Your task to perform on an android device: install app "Grab" Image 0: 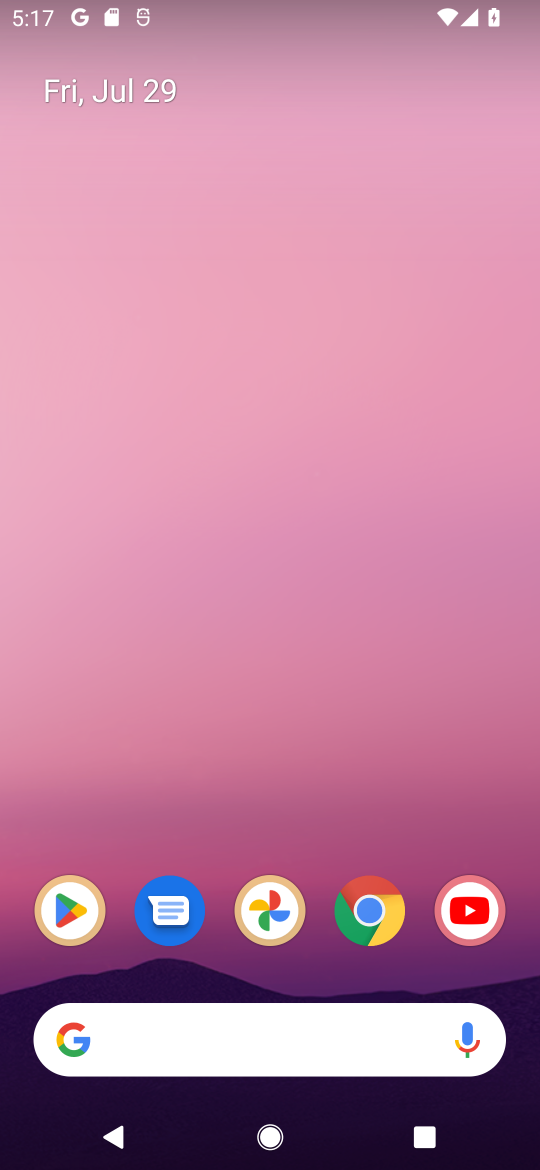
Step 0: click (64, 909)
Your task to perform on an android device: install app "Grab" Image 1: 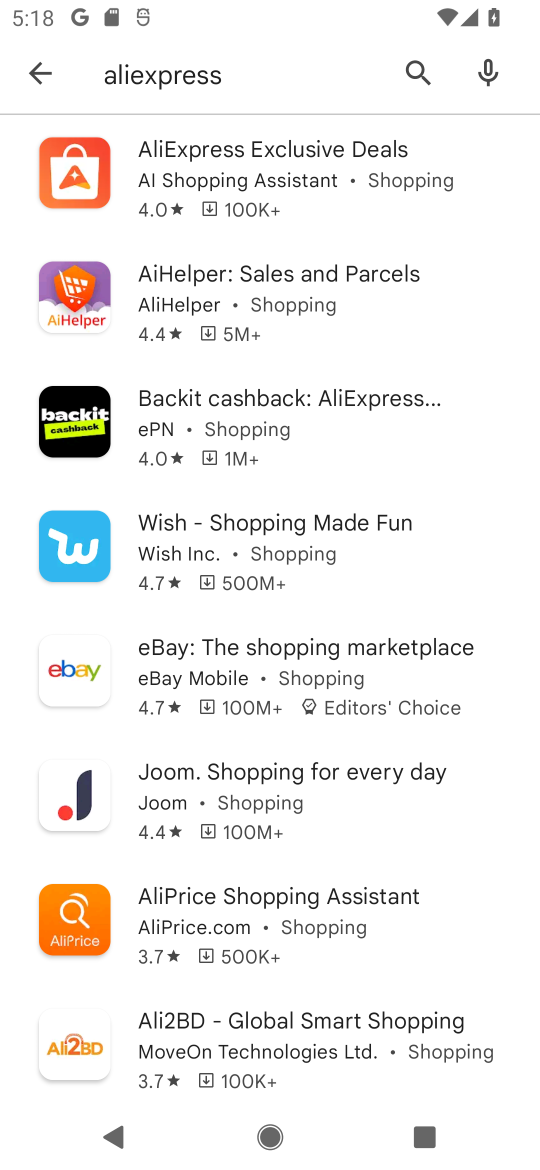
Step 1: click (421, 69)
Your task to perform on an android device: install app "Grab" Image 2: 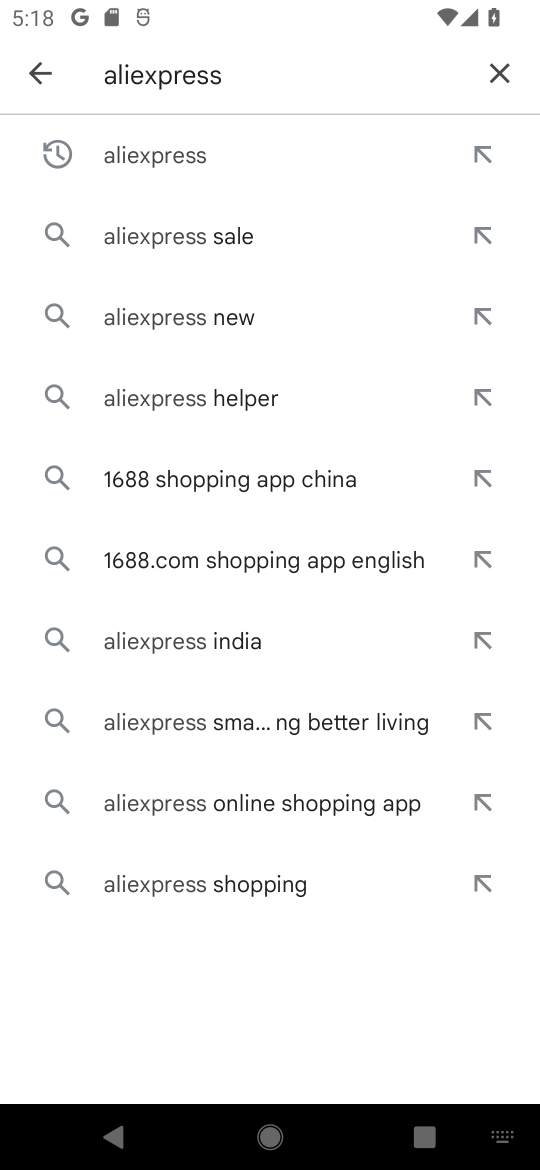
Step 2: click (509, 86)
Your task to perform on an android device: install app "Grab" Image 3: 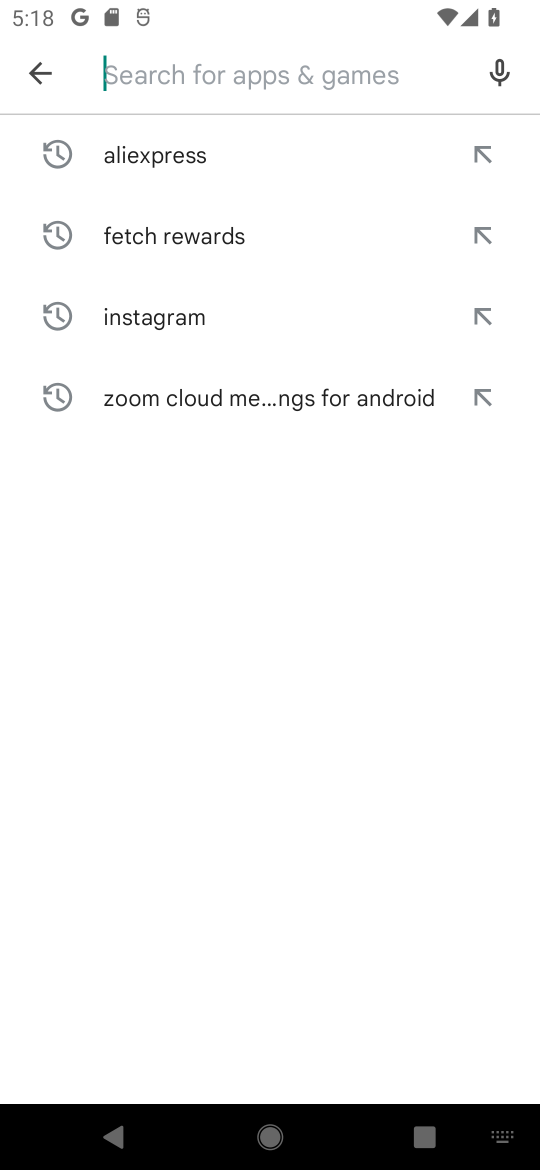
Step 3: type "Grab"
Your task to perform on an android device: install app "Grab" Image 4: 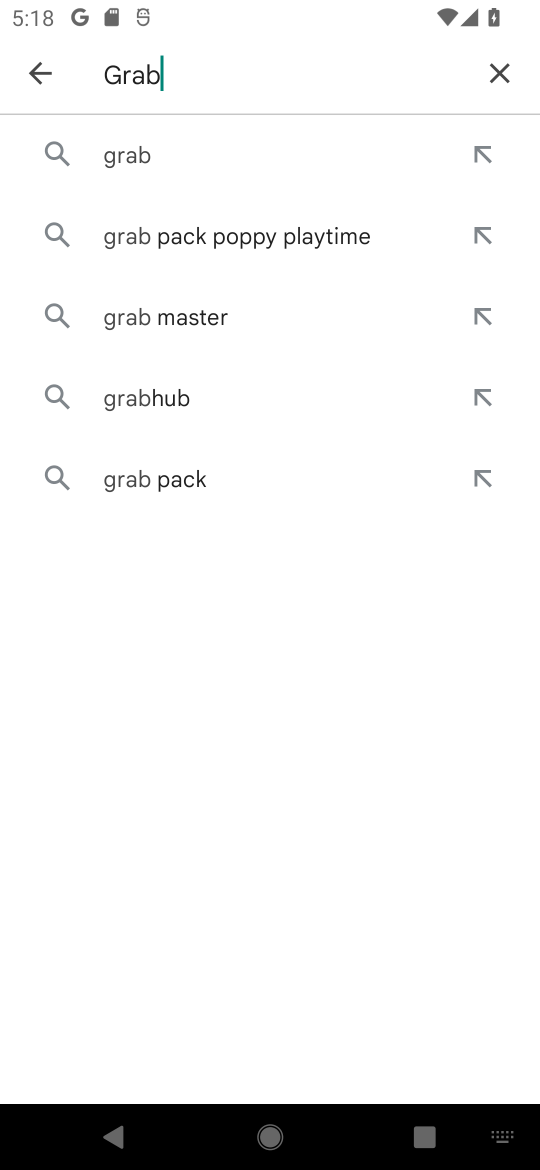
Step 4: click (294, 141)
Your task to perform on an android device: install app "Grab" Image 5: 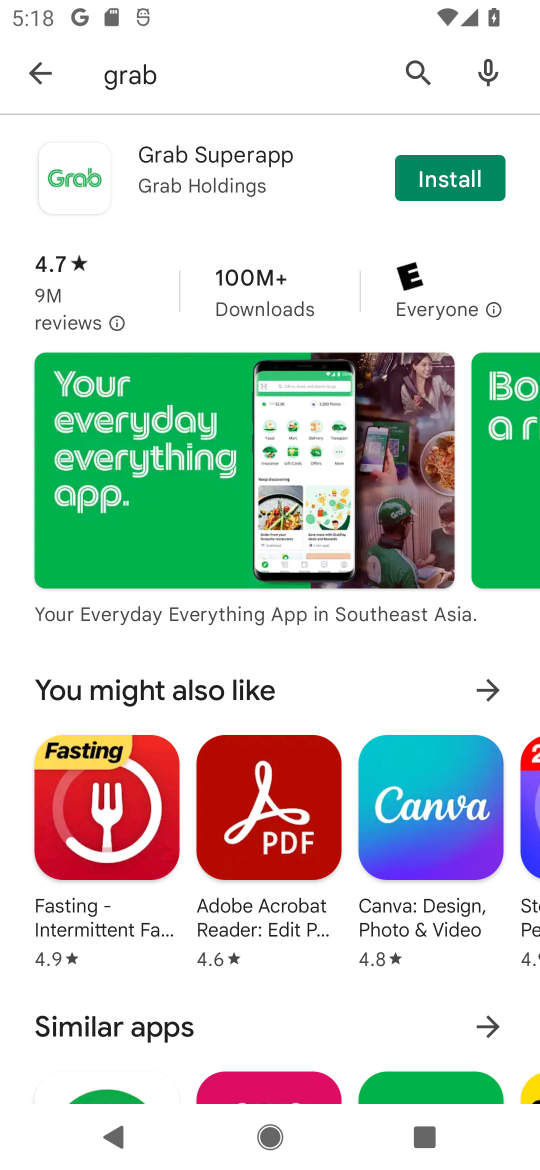
Step 5: click (294, 141)
Your task to perform on an android device: install app "Grab" Image 6: 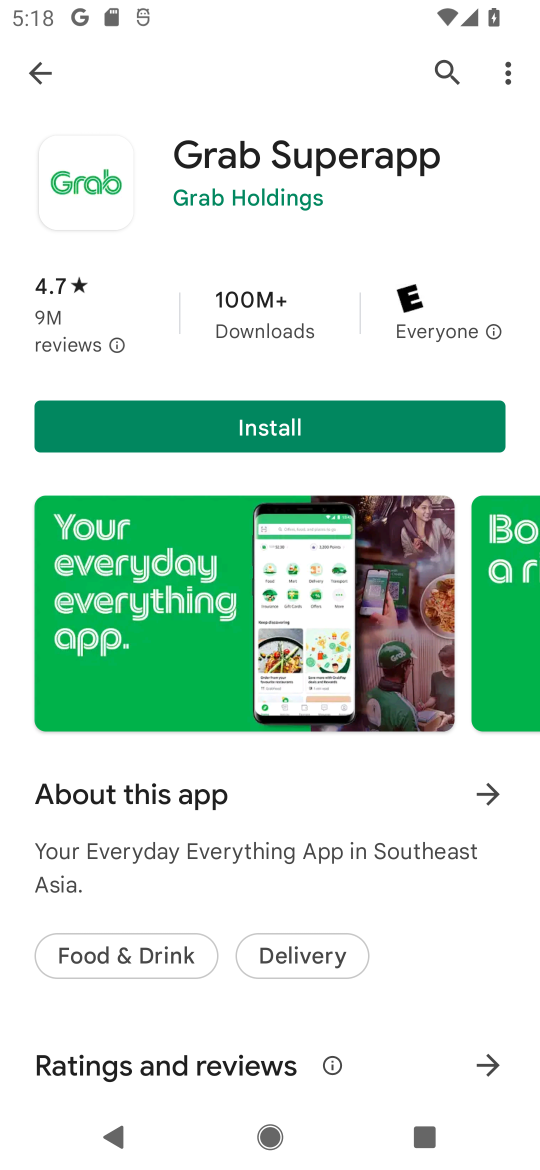
Step 6: click (232, 428)
Your task to perform on an android device: install app "Grab" Image 7: 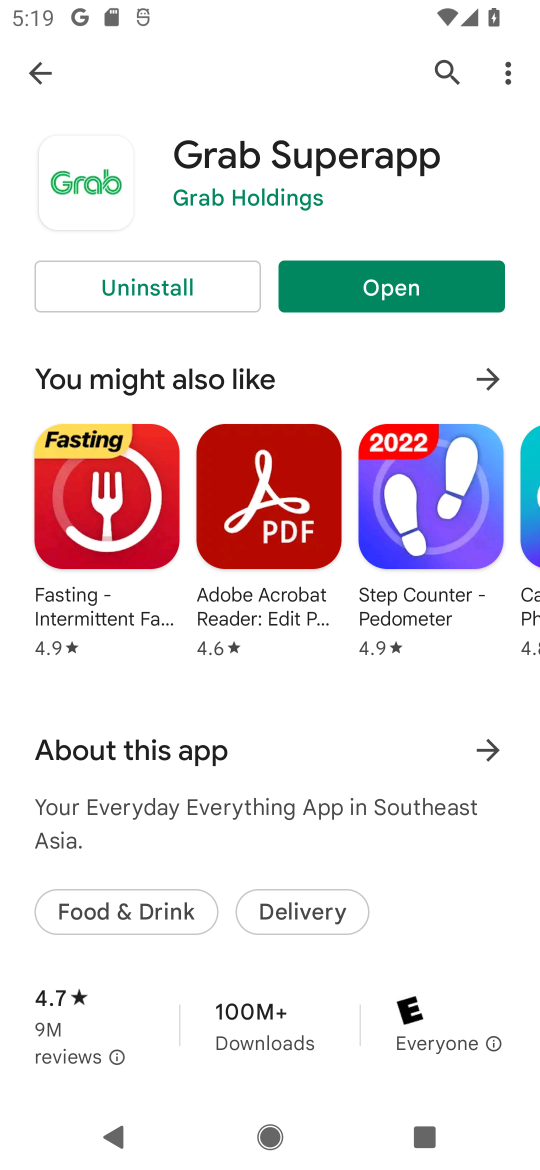
Step 7: task complete